Your task to perform on an android device: open a bookmark in the chrome app Image 0: 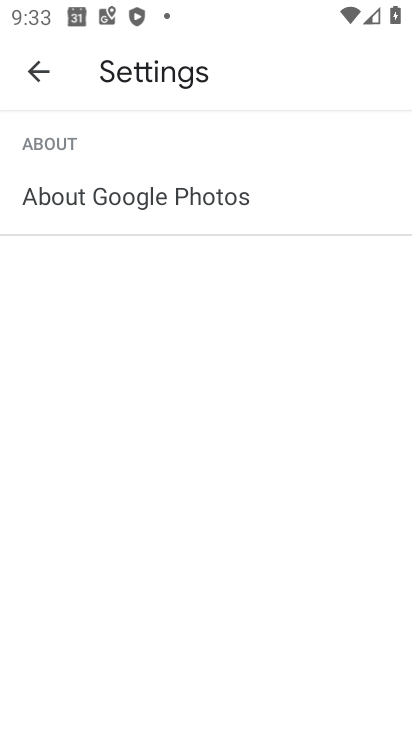
Step 0: press home button
Your task to perform on an android device: open a bookmark in the chrome app Image 1: 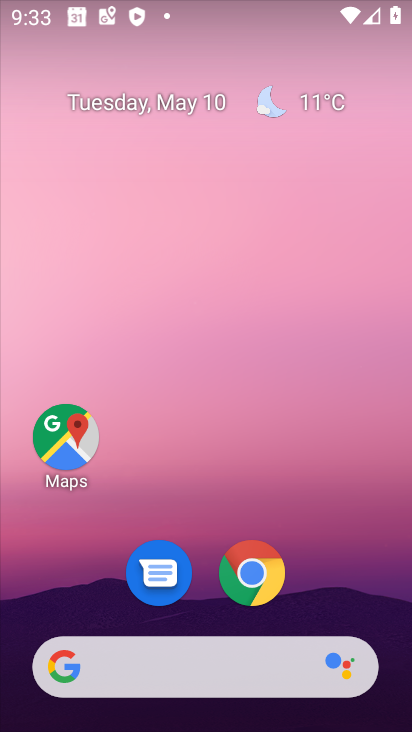
Step 1: click (256, 581)
Your task to perform on an android device: open a bookmark in the chrome app Image 2: 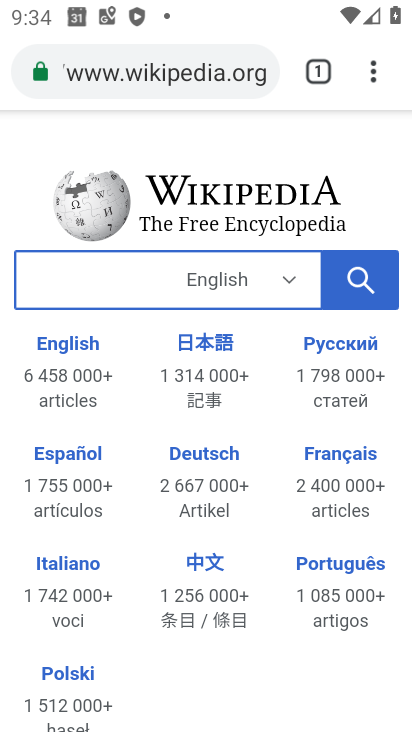
Step 2: drag from (376, 69) to (144, 270)
Your task to perform on an android device: open a bookmark in the chrome app Image 3: 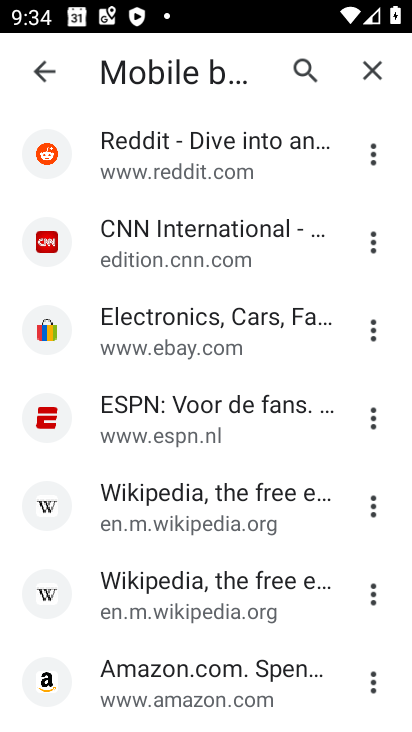
Step 3: click (178, 427)
Your task to perform on an android device: open a bookmark in the chrome app Image 4: 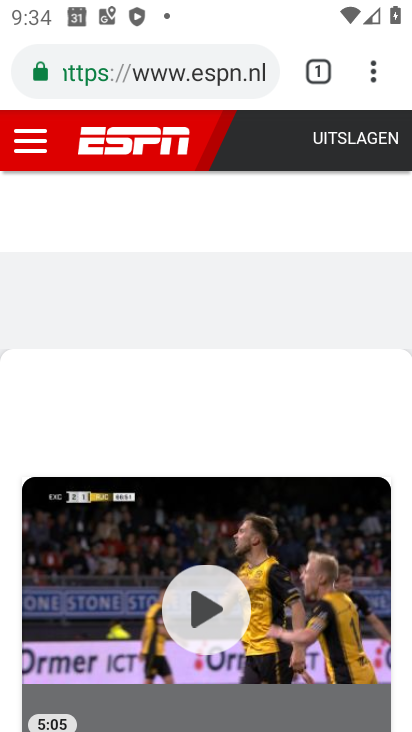
Step 4: task complete